Your task to perform on an android device: turn off smart reply in the gmail app Image 0: 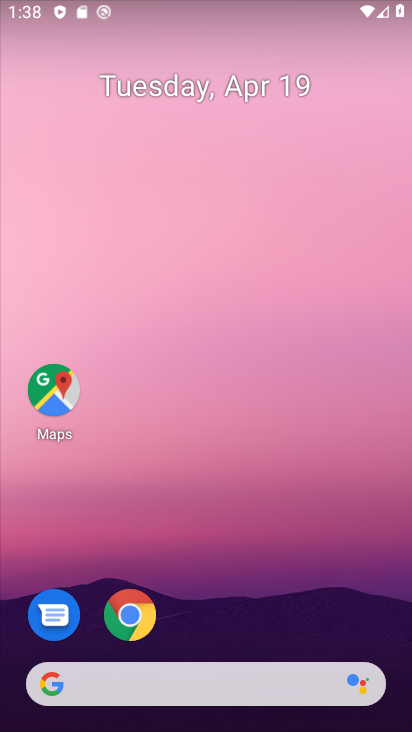
Step 0: drag from (228, 605) to (260, 27)
Your task to perform on an android device: turn off smart reply in the gmail app Image 1: 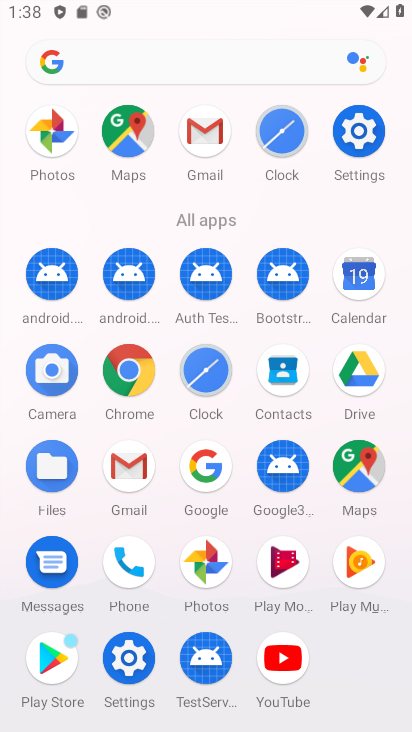
Step 1: drag from (160, 686) to (176, 331)
Your task to perform on an android device: turn off smart reply in the gmail app Image 2: 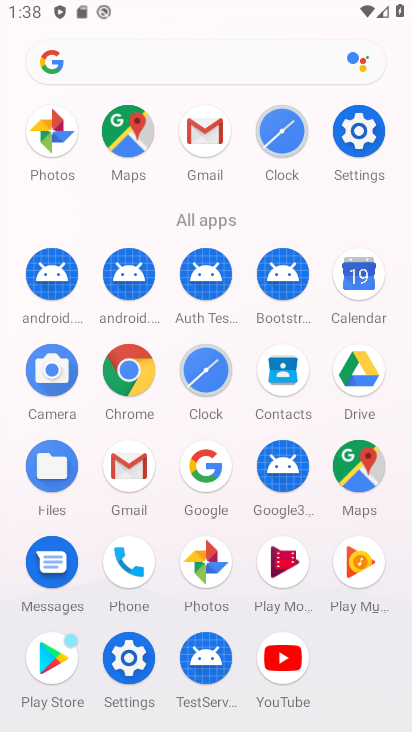
Step 2: click (132, 478)
Your task to perform on an android device: turn off smart reply in the gmail app Image 3: 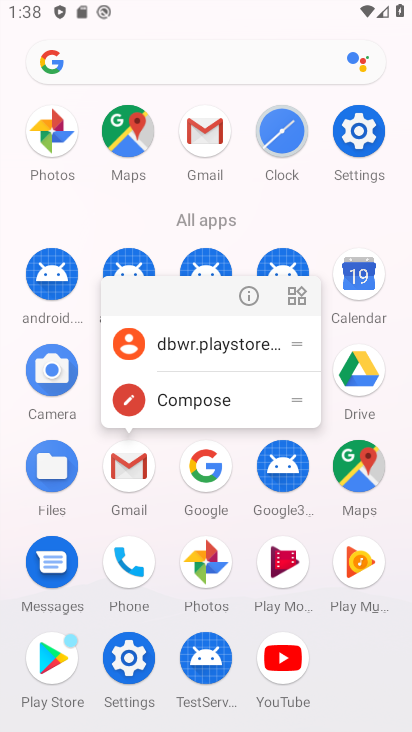
Step 3: click (251, 288)
Your task to perform on an android device: turn off smart reply in the gmail app Image 4: 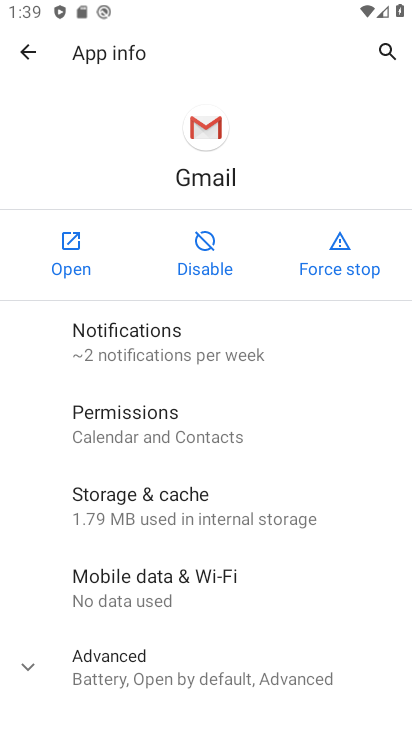
Step 4: click (67, 241)
Your task to perform on an android device: turn off smart reply in the gmail app Image 5: 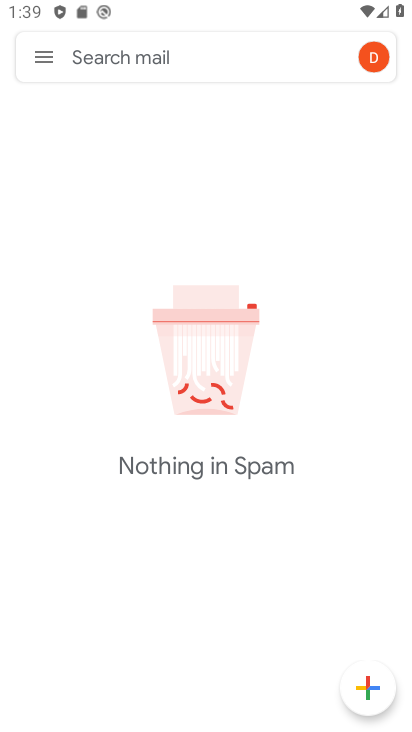
Step 5: drag from (297, 557) to (314, 460)
Your task to perform on an android device: turn off smart reply in the gmail app Image 6: 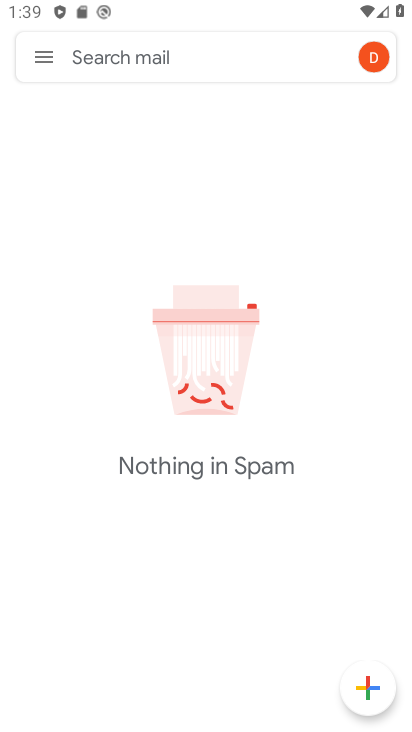
Step 6: click (193, 428)
Your task to perform on an android device: turn off smart reply in the gmail app Image 7: 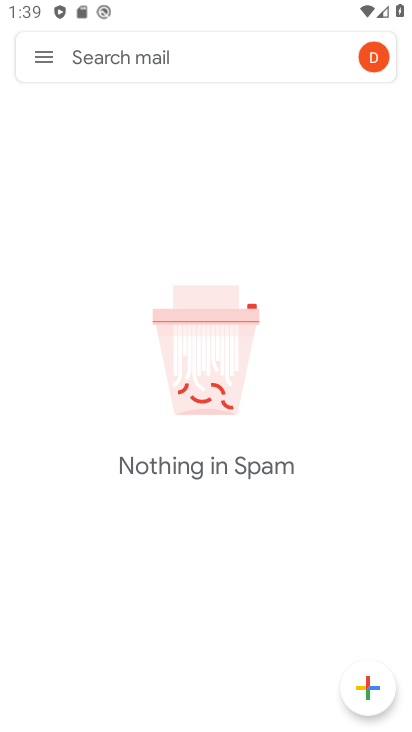
Step 7: click (194, 277)
Your task to perform on an android device: turn off smart reply in the gmail app Image 8: 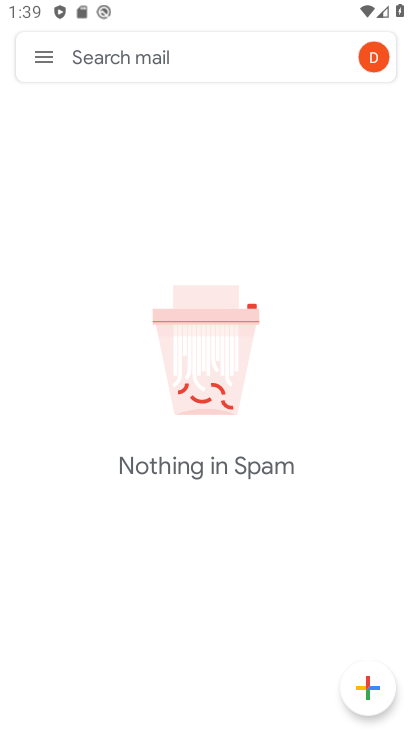
Step 8: click (39, 66)
Your task to perform on an android device: turn off smart reply in the gmail app Image 9: 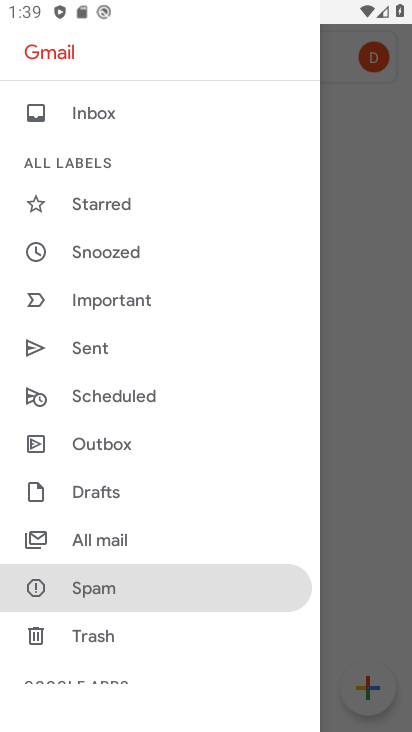
Step 9: drag from (143, 256) to (163, 159)
Your task to perform on an android device: turn off smart reply in the gmail app Image 10: 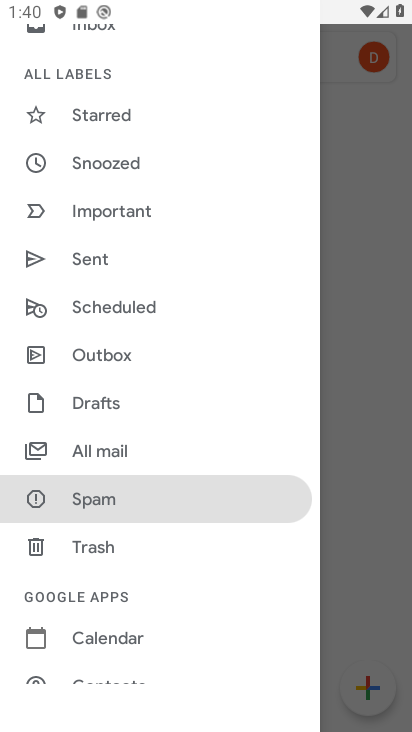
Step 10: drag from (174, 576) to (253, 349)
Your task to perform on an android device: turn off smart reply in the gmail app Image 11: 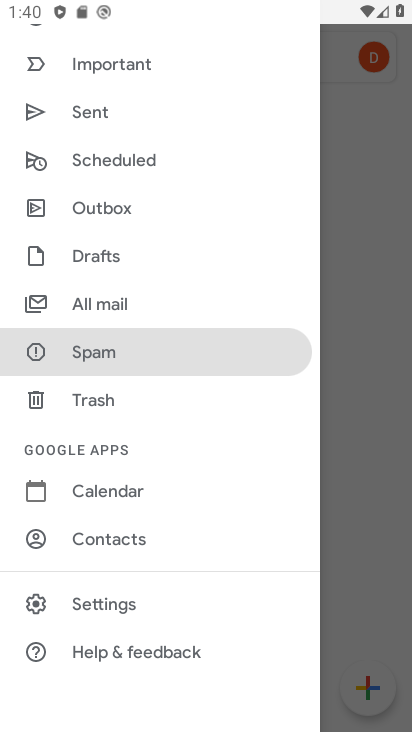
Step 11: click (114, 599)
Your task to perform on an android device: turn off smart reply in the gmail app Image 12: 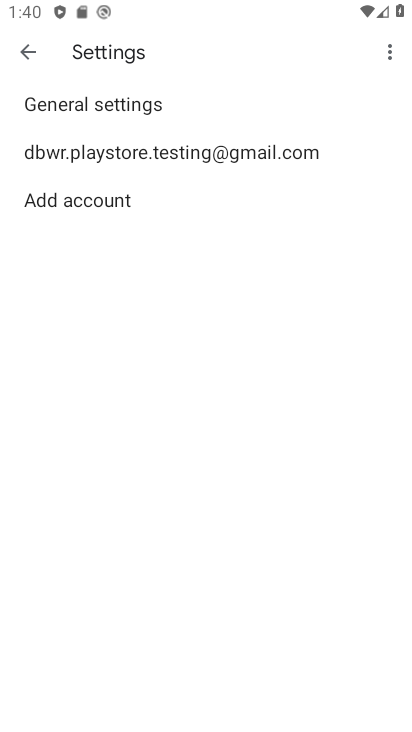
Step 12: click (139, 145)
Your task to perform on an android device: turn off smart reply in the gmail app Image 13: 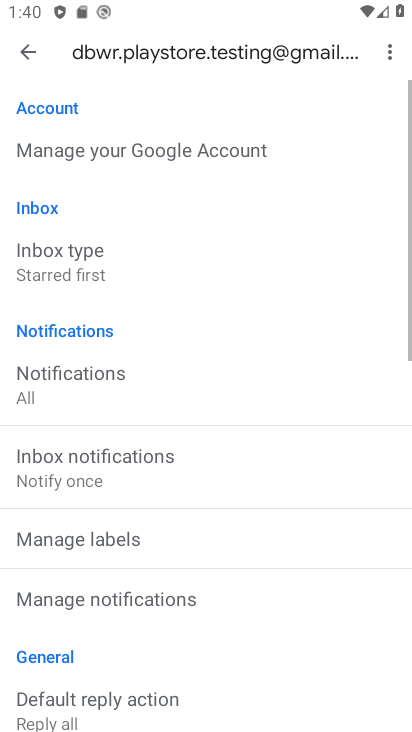
Step 13: drag from (152, 600) to (183, 108)
Your task to perform on an android device: turn off smart reply in the gmail app Image 14: 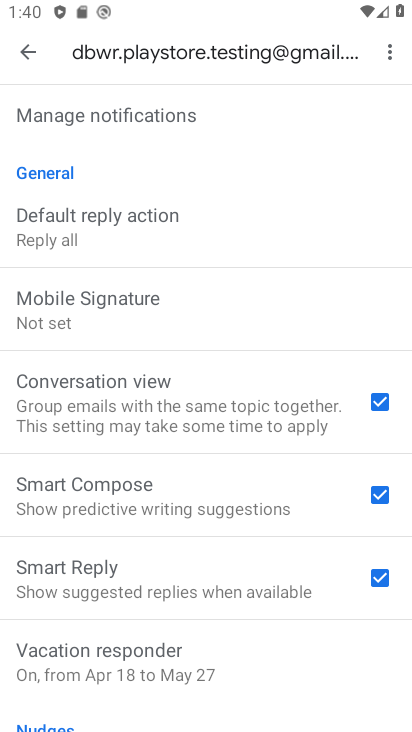
Step 14: drag from (220, 565) to (254, 389)
Your task to perform on an android device: turn off smart reply in the gmail app Image 15: 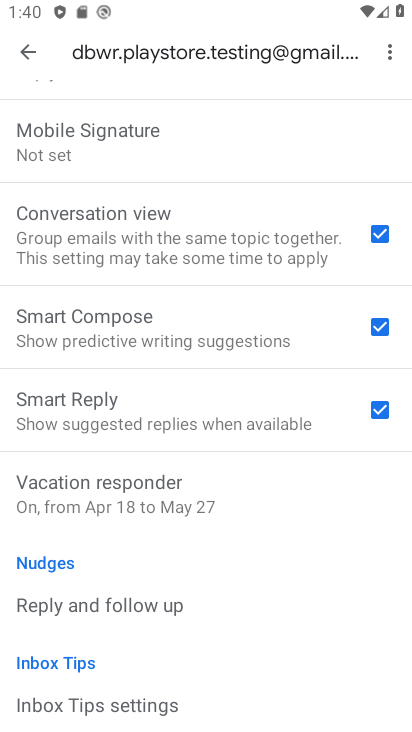
Step 15: drag from (200, 205) to (177, 533)
Your task to perform on an android device: turn off smart reply in the gmail app Image 16: 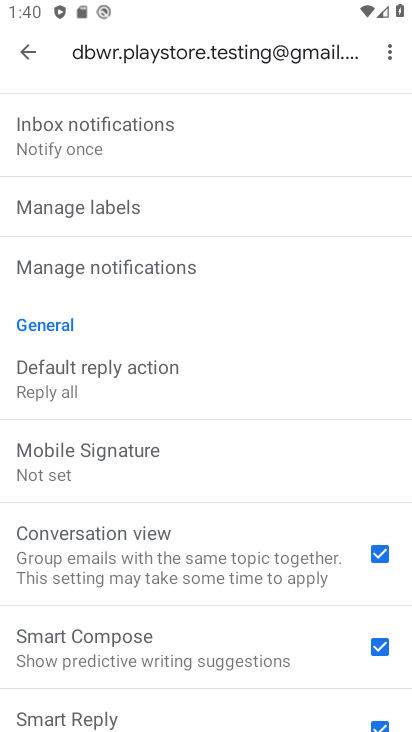
Step 16: drag from (134, 503) to (193, 272)
Your task to perform on an android device: turn off smart reply in the gmail app Image 17: 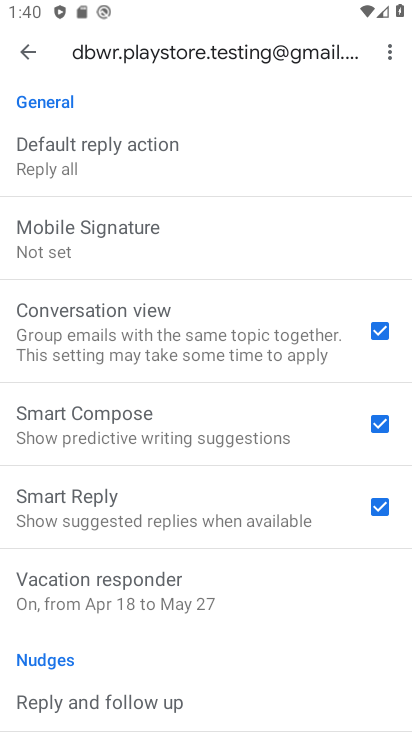
Step 17: click (189, 505)
Your task to perform on an android device: turn off smart reply in the gmail app Image 18: 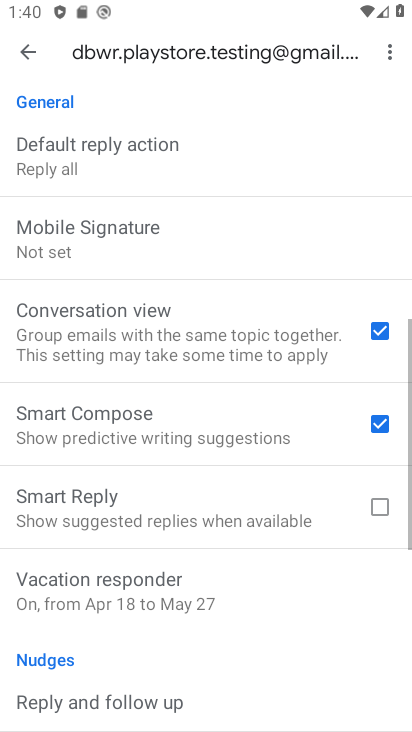
Step 18: task complete